Your task to perform on an android device: check data usage Image 0: 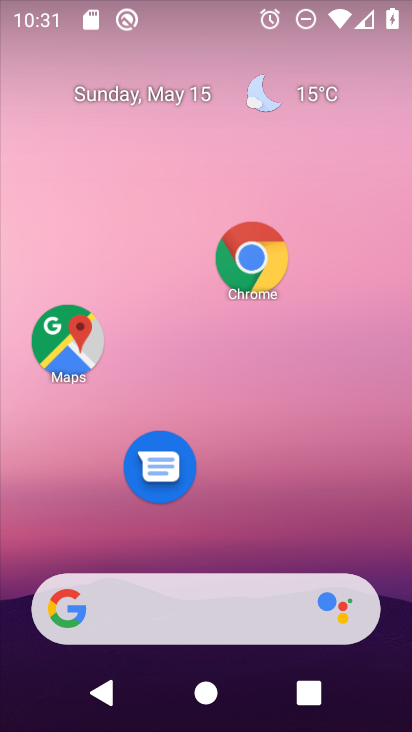
Step 0: drag from (229, 19) to (250, 585)
Your task to perform on an android device: check data usage Image 1: 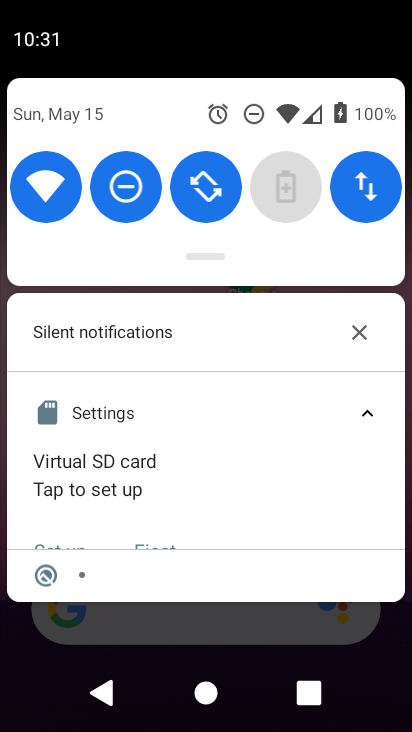
Step 1: click (376, 193)
Your task to perform on an android device: check data usage Image 2: 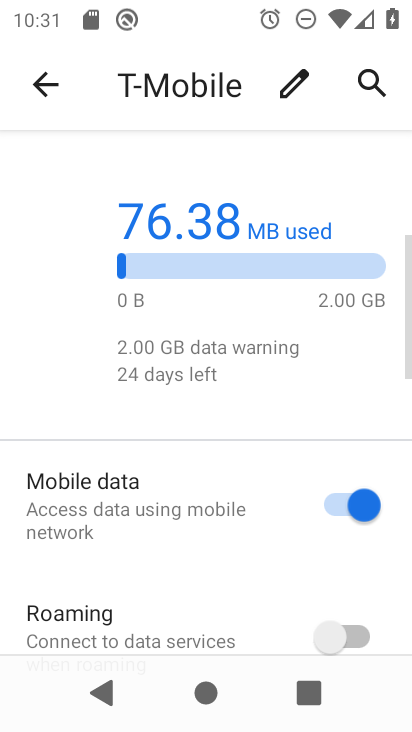
Step 2: task complete